Your task to perform on an android device: Open CNN.com Image 0: 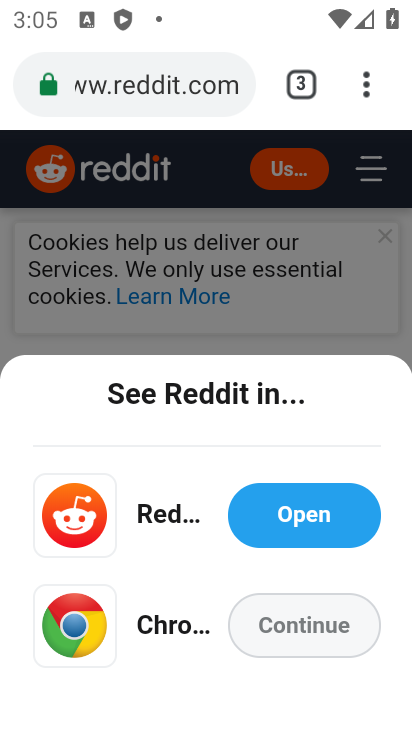
Step 0: press home button
Your task to perform on an android device: Open CNN.com Image 1: 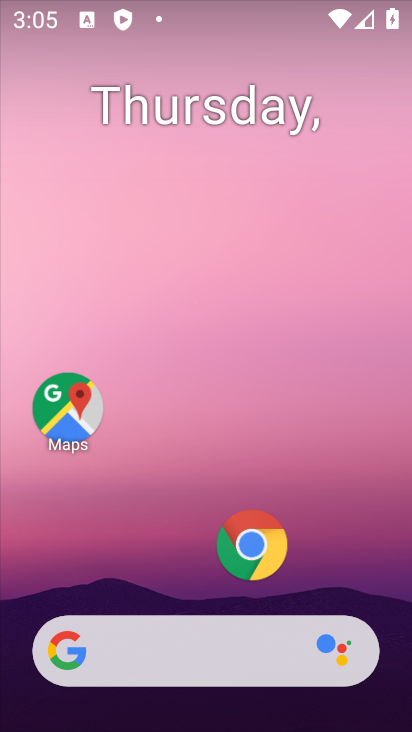
Step 1: drag from (186, 618) to (200, 7)
Your task to perform on an android device: Open CNN.com Image 2: 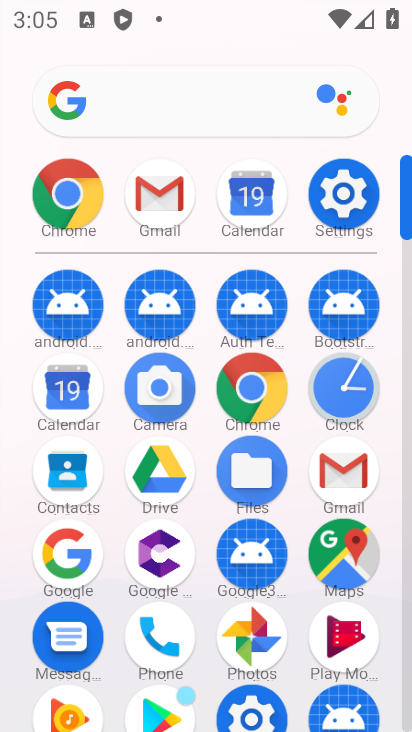
Step 2: click (265, 391)
Your task to perform on an android device: Open CNN.com Image 3: 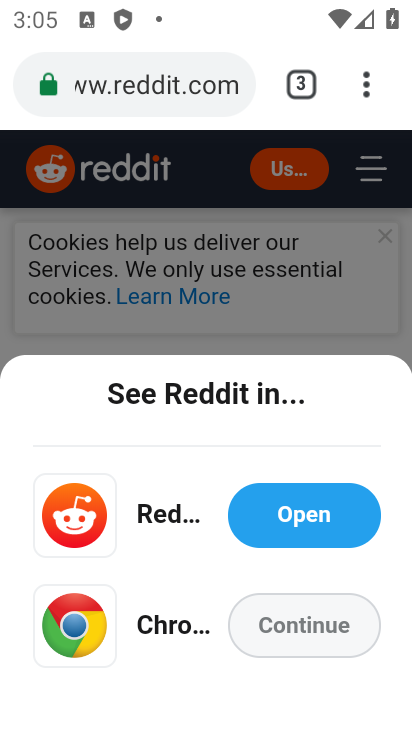
Step 3: click (173, 61)
Your task to perform on an android device: Open CNN.com Image 4: 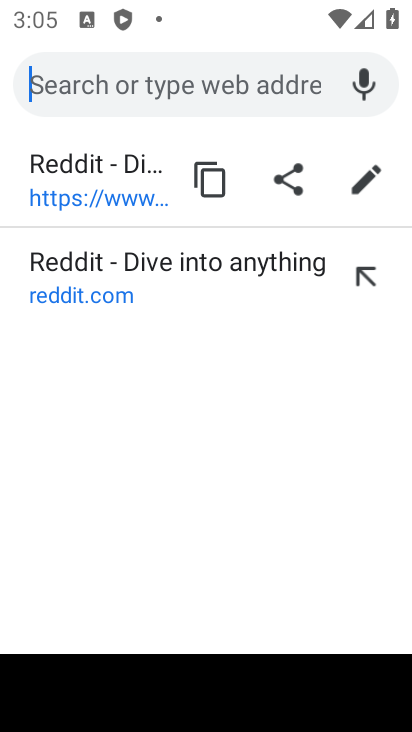
Step 4: type "cnn.com"
Your task to perform on an android device: Open CNN.com Image 5: 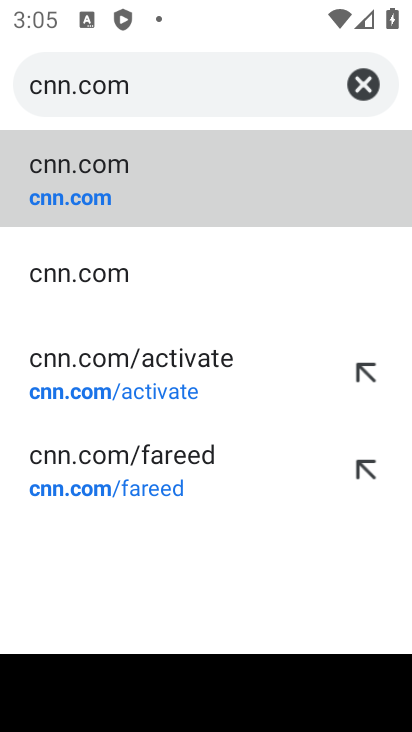
Step 5: click (145, 156)
Your task to perform on an android device: Open CNN.com Image 6: 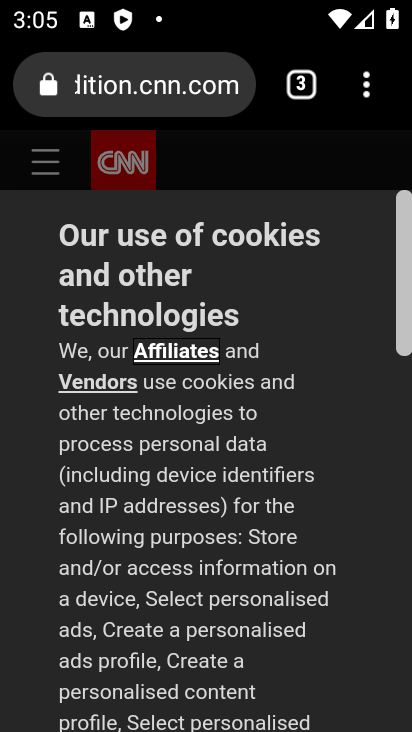
Step 6: task complete